Your task to perform on an android device: Show me the alarms in the clock app Image 0: 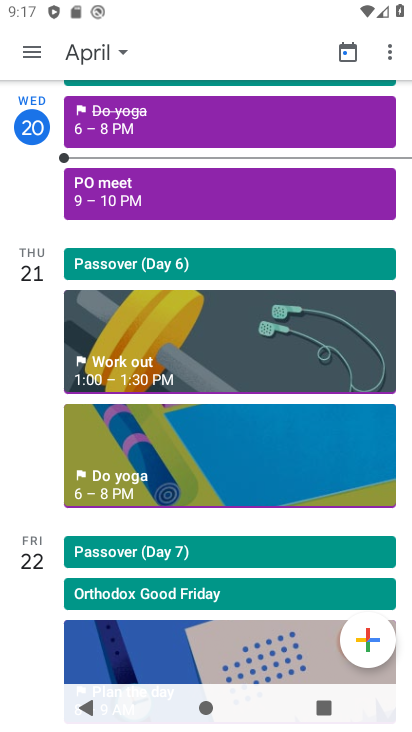
Step 0: press home button
Your task to perform on an android device: Show me the alarms in the clock app Image 1: 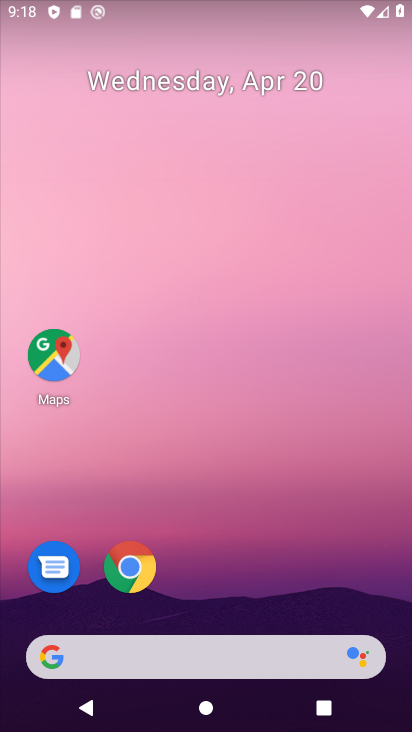
Step 1: drag from (348, 568) to (356, 207)
Your task to perform on an android device: Show me the alarms in the clock app Image 2: 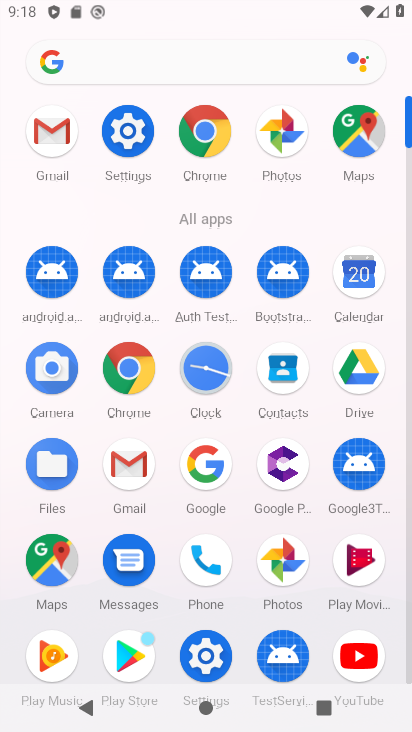
Step 2: click (206, 371)
Your task to perform on an android device: Show me the alarms in the clock app Image 3: 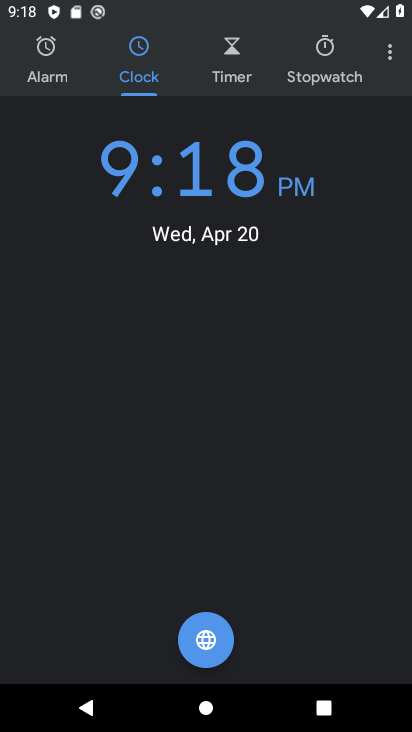
Step 3: click (43, 69)
Your task to perform on an android device: Show me the alarms in the clock app Image 4: 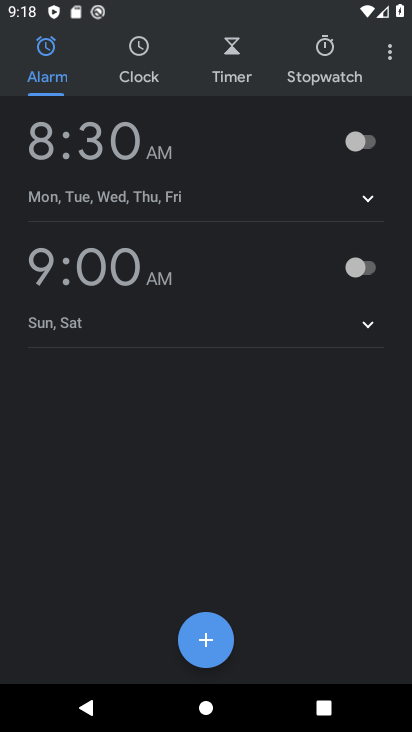
Step 4: task complete